Your task to perform on an android device: Go to ESPN.com Image 0: 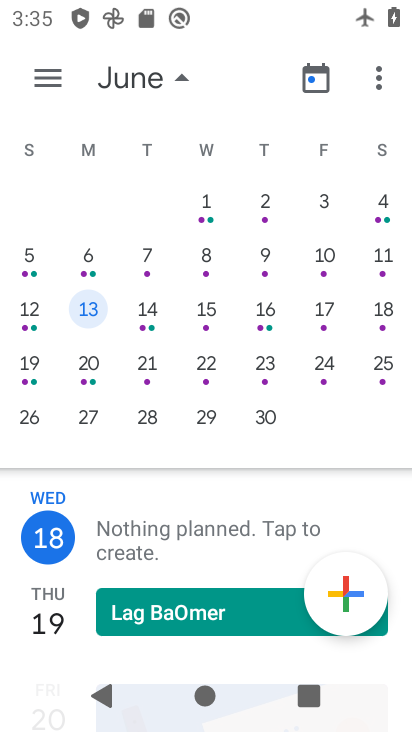
Step 0: press home button
Your task to perform on an android device: Go to ESPN.com Image 1: 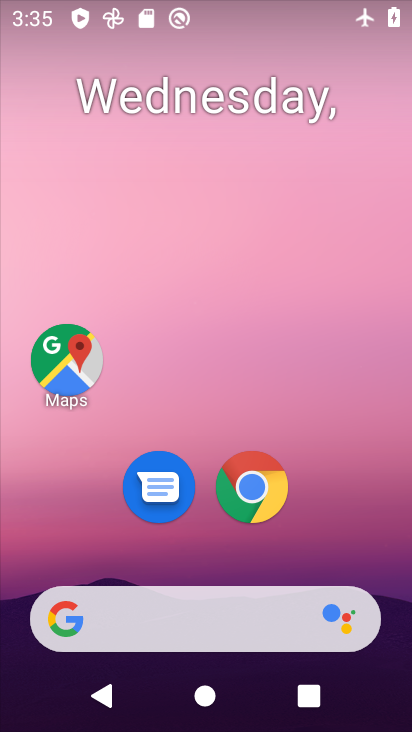
Step 1: drag from (342, 535) to (351, 191)
Your task to perform on an android device: Go to ESPN.com Image 2: 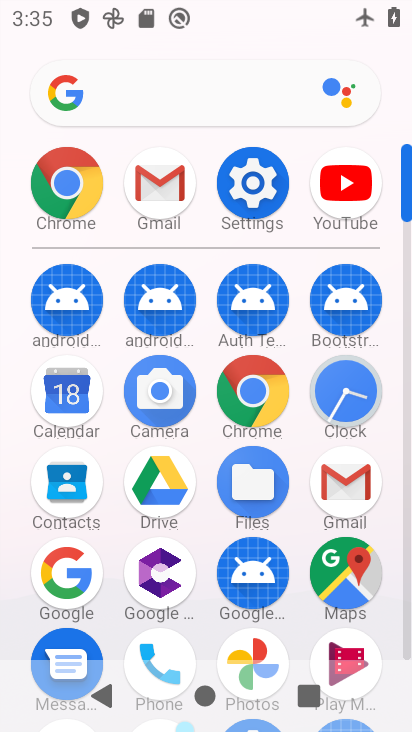
Step 2: drag from (294, 525) to (310, 308)
Your task to perform on an android device: Go to ESPN.com Image 3: 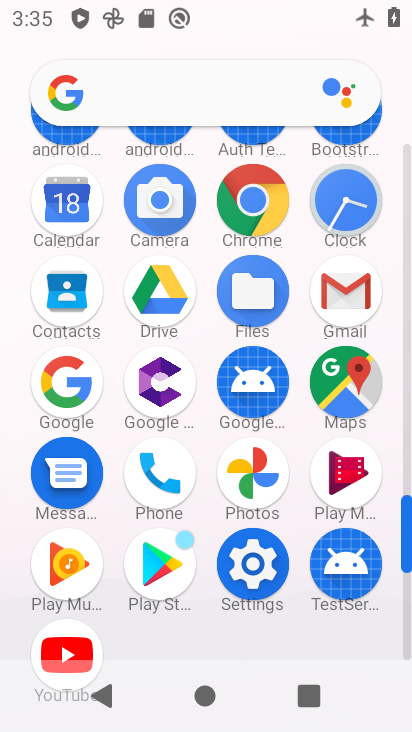
Step 3: click (256, 209)
Your task to perform on an android device: Go to ESPN.com Image 4: 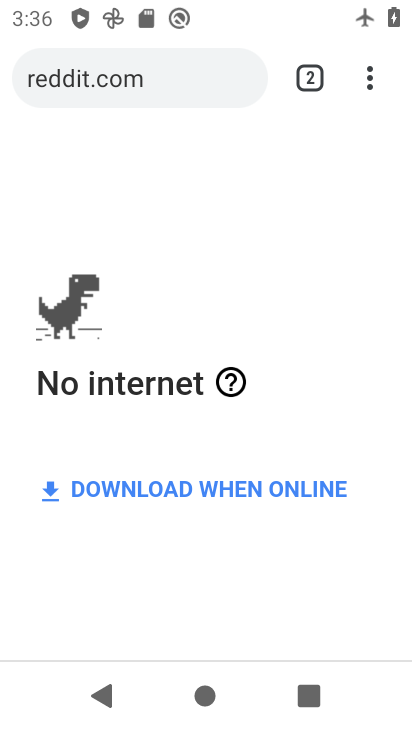
Step 4: press back button
Your task to perform on an android device: Go to ESPN.com Image 5: 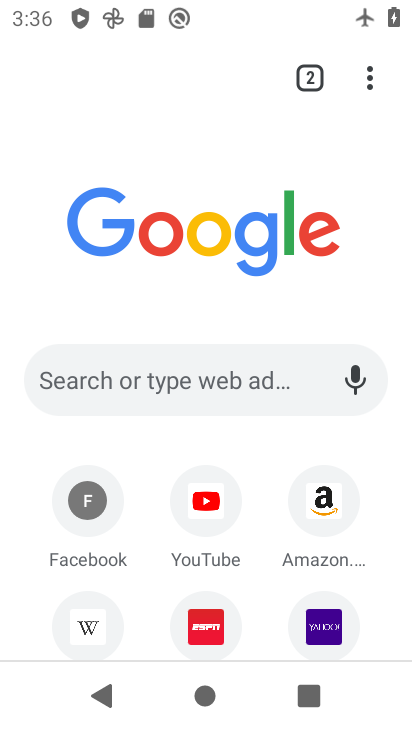
Step 5: press back button
Your task to perform on an android device: Go to ESPN.com Image 6: 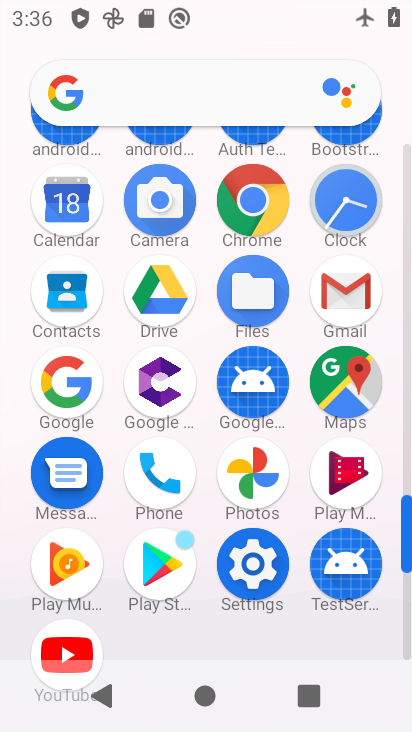
Step 6: click (263, 573)
Your task to perform on an android device: Go to ESPN.com Image 7: 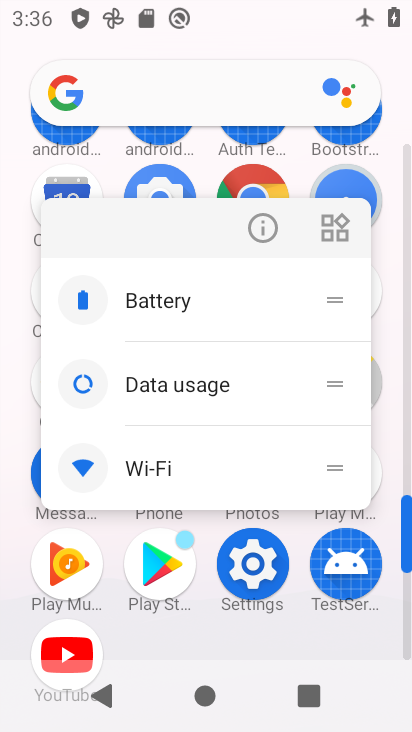
Step 7: click (263, 573)
Your task to perform on an android device: Go to ESPN.com Image 8: 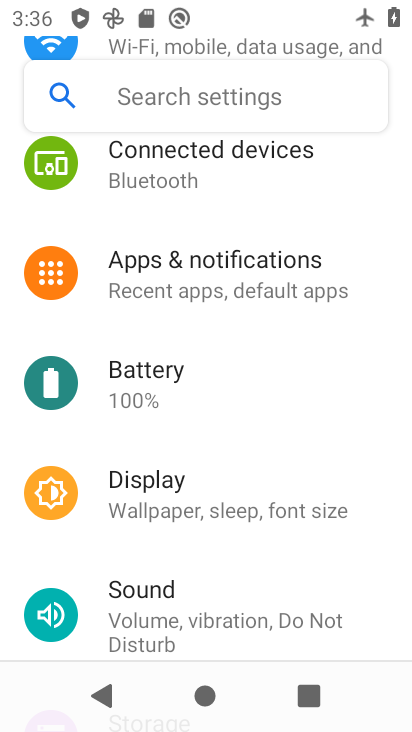
Step 8: drag from (358, 347) to (357, 524)
Your task to perform on an android device: Go to ESPN.com Image 9: 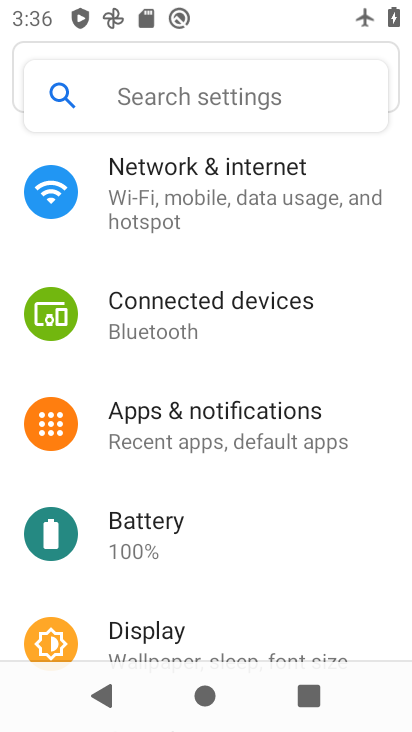
Step 9: drag from (366, 313) to (368, 489)
Your task to perform on an android device: Go to ESPN.com Image 10: 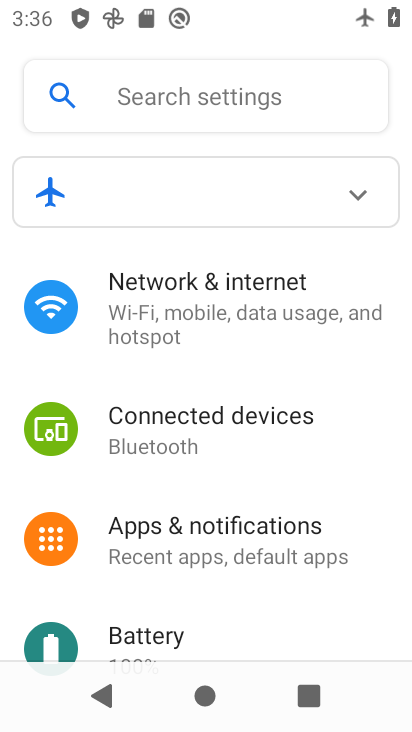
Step 10: drag from (359, 363) to (356, 492)
Your task to perform on an android device: Go to ESPN.com Image 11: 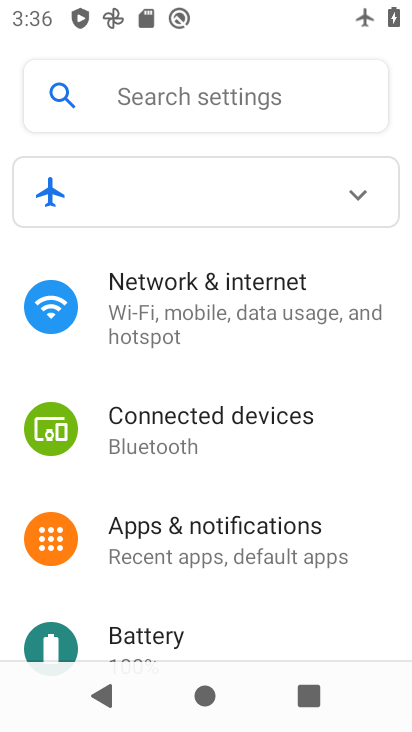
Step 11: drag from (358, 609) to (383, 516)
Your task to perform on an android device: Go to ESPN.com Image 12: 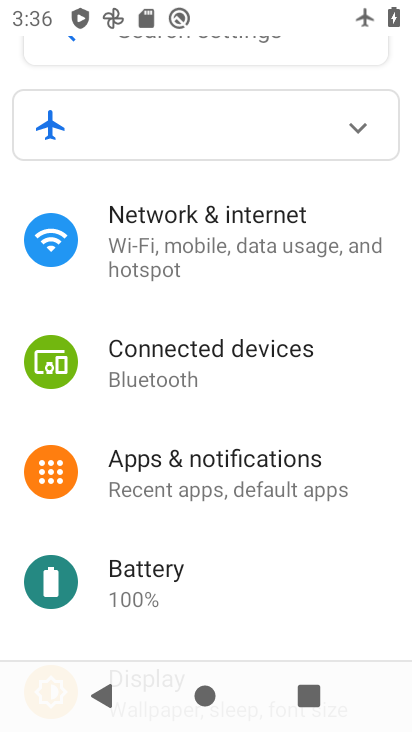
Step 12: drag from (353, 616) to (371, 481)
Your task to perform on an android device: Go to ESPN.com Image 13: 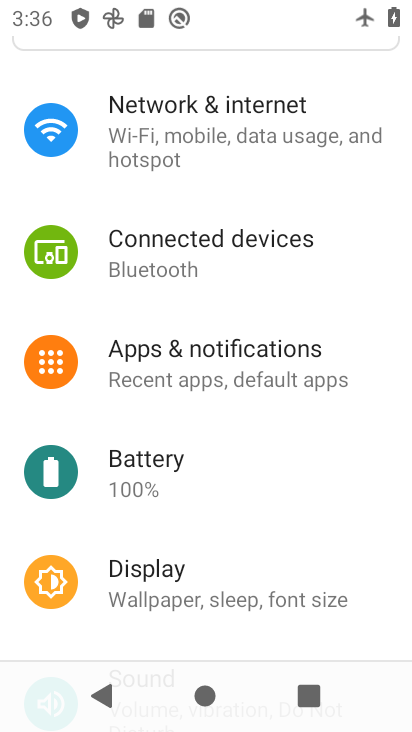
Step 13: drag from (340, 601) to (338, 492)
Your task to perform on an android device: Go to ESPN.com Image 14: 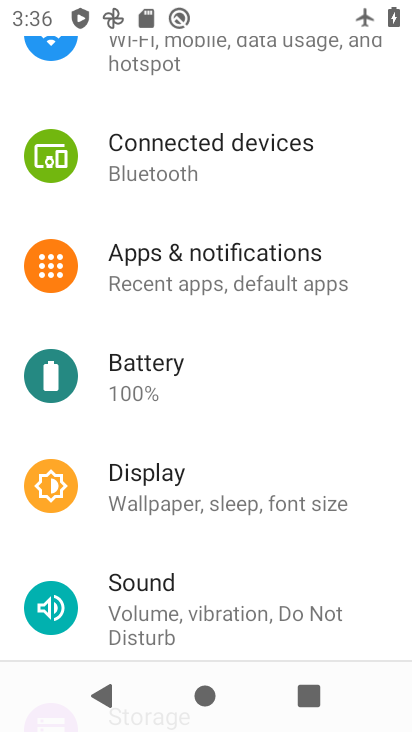
Step 14: drag from (322, 516) to (331, 423)
Your task to perform on an android device: Go to ESPN.com Image 15: 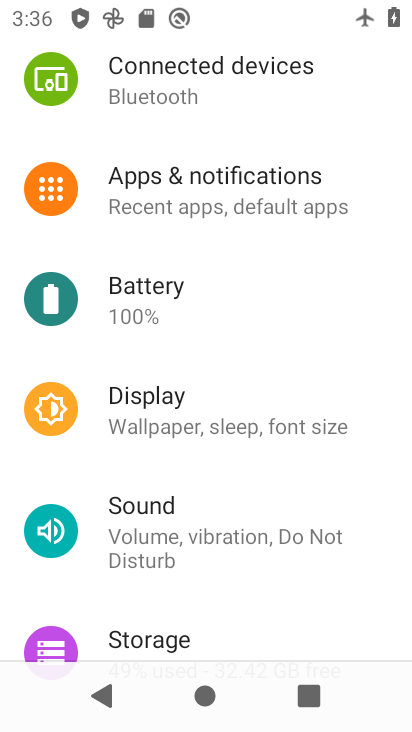
Step 15: drag from (338, 609) to (345, 474)
Your task to perform on an android device: Go to ESPN.com Image 16: 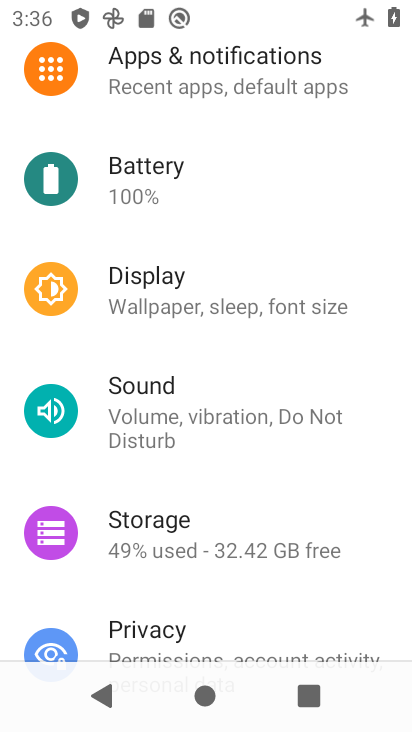
Step 16: drag from (352, 317) to (336, 503)
Your task to perform on an android device: Go to ESPN.com Image 17: 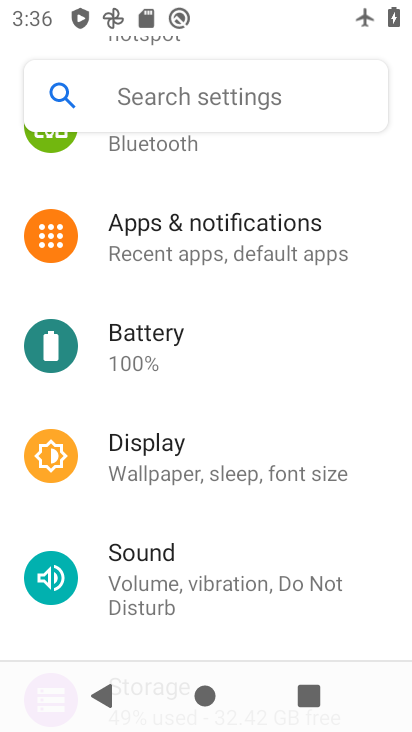
Step 17: drag from (278, 332) to (249, 537)
Your task to perform on an android device: Go to ESPN.com Image 18: 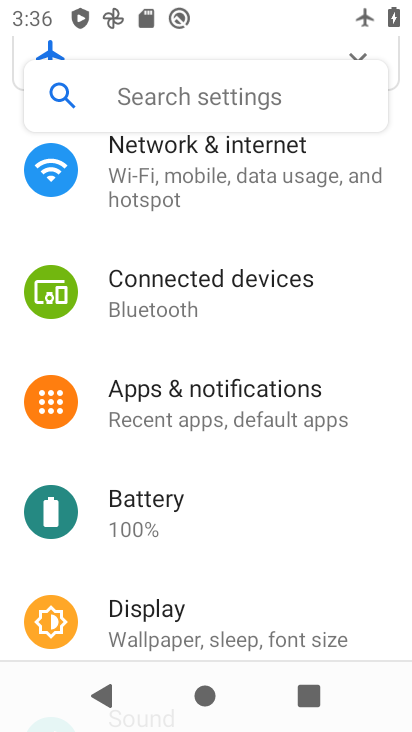
Step 18: drag from (337, 297) to (328, 466)
Your task to perform on an android device: Go to ESPN.com Image 19: 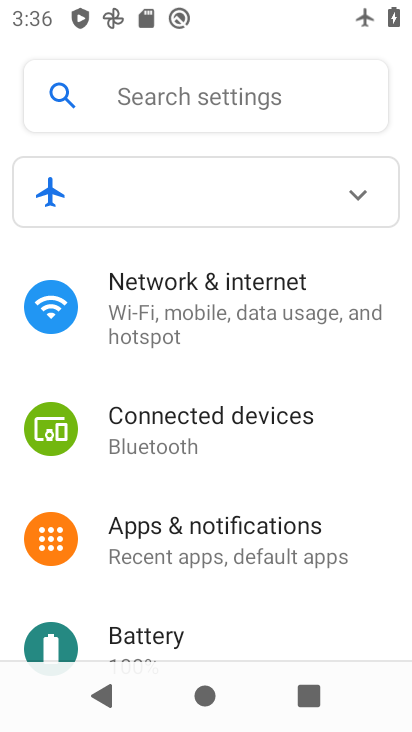
Step 19: click (291, 303)
Your task to perform on an android device: Go to ESPN.com Image 20: 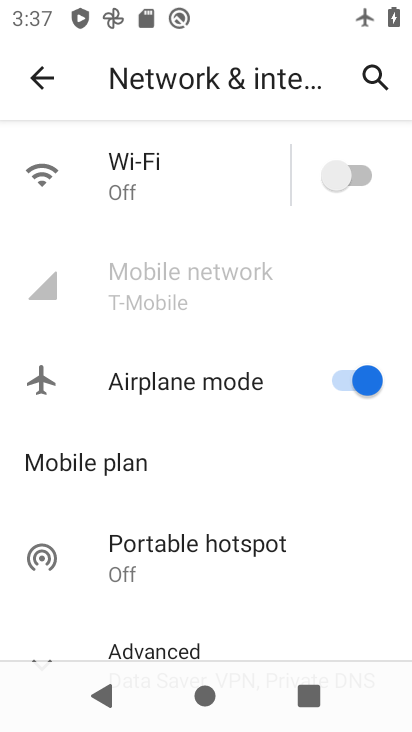
Step 20: click (364, 376)
Your task to perform on an android device: Go to ESPN.com Image 21: 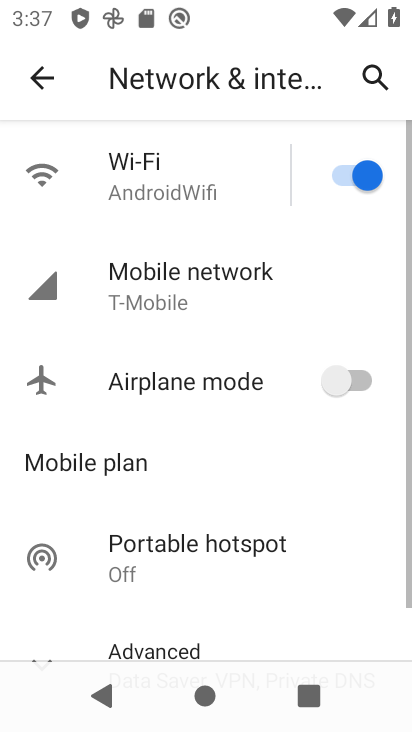
Step 21: task complete